Your task to perform on an android device: change keyboard looks Image 0: 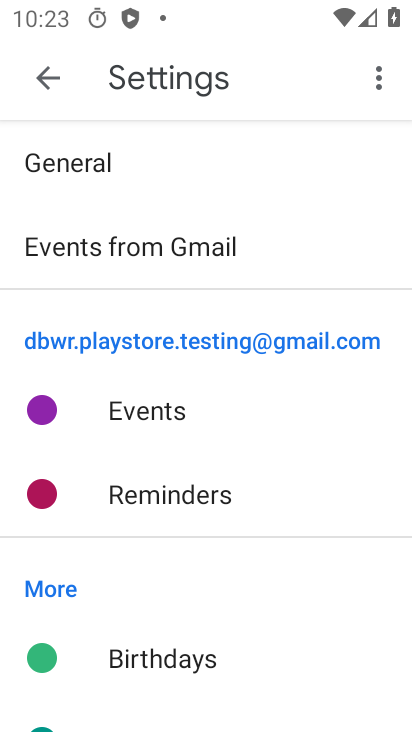
Step 0: press home button
Your task to perform on an android device: change keyboard looks Image 1: 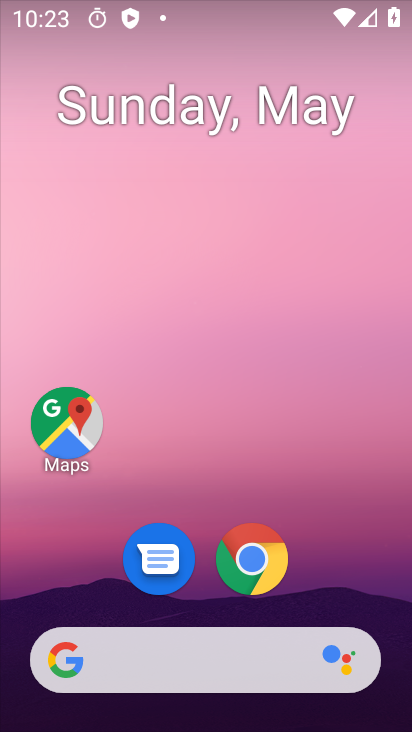
Step 1: drag from (339, 569) to (339, 82)
Your task to perform on an android device: change keyboard looks Image 2: 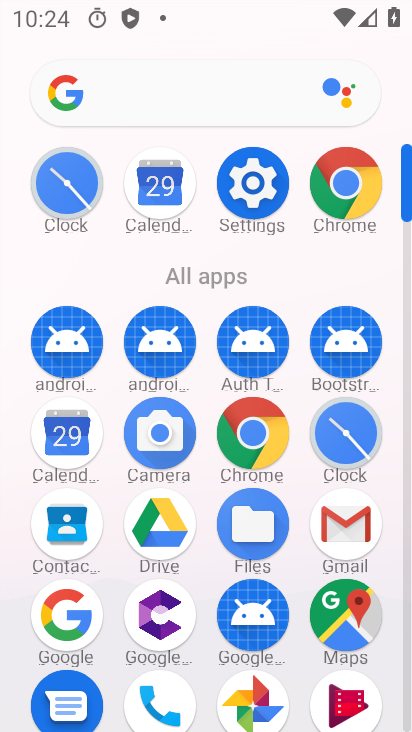
Step 2: drag from (290, 601) to (297, 329)
Your task to perform on an android device: change keyboard looks Image 3: 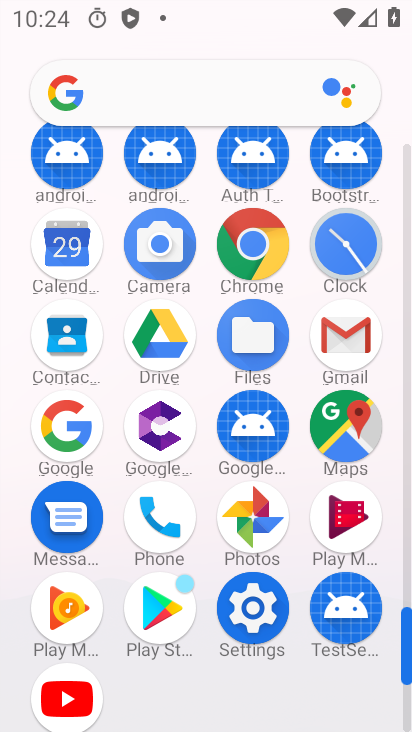
Step 3: click (260, 626)
Your task to perform on an android device: change keyboard looks Image 4: 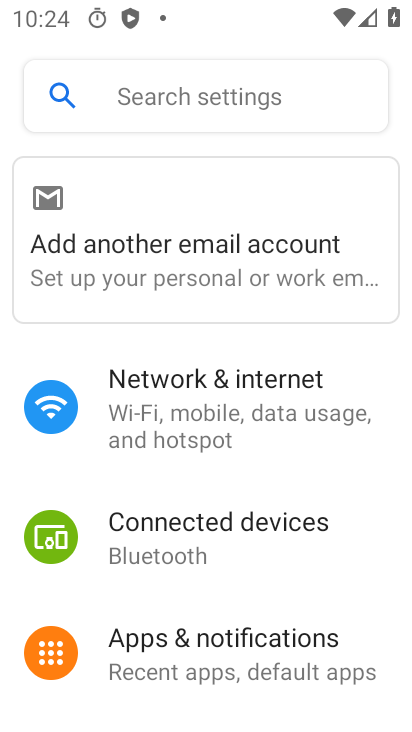
Step 4: drag from (297, 653) to (275, 210)
Your task to perform on an android device: change keyboard looks Image 5: 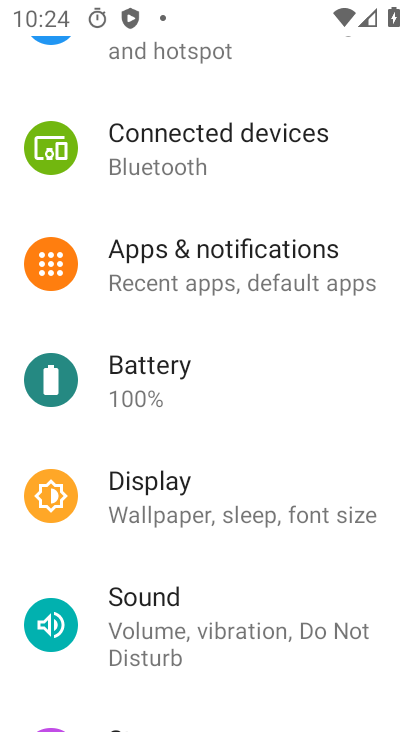
Step 5: drag from (345, 666) to (318, 184)
Your task to perform on an android device: change keyboard looks Image 6: 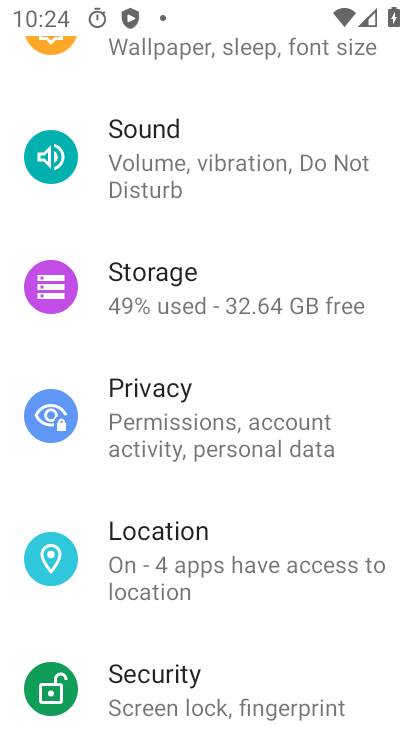
Step 6: drag from (302, 671) to (315, 241)
Your task to perform on an android device: change keyboard looks Image 7: 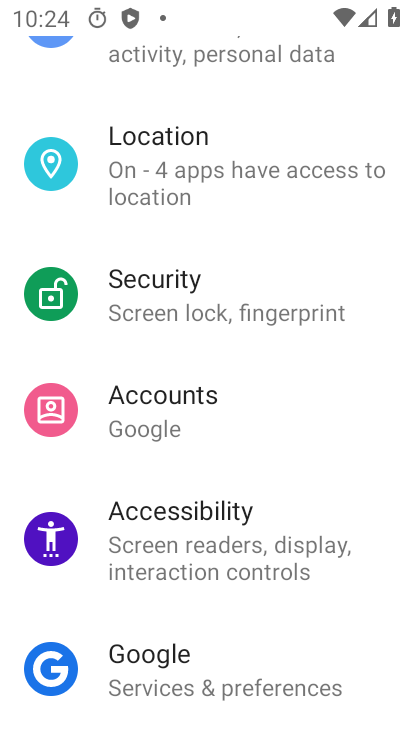
Step 7: drag from (306, 634) to (317, 169)
Your task to perform on an android device: change keyboard looks Image 8: 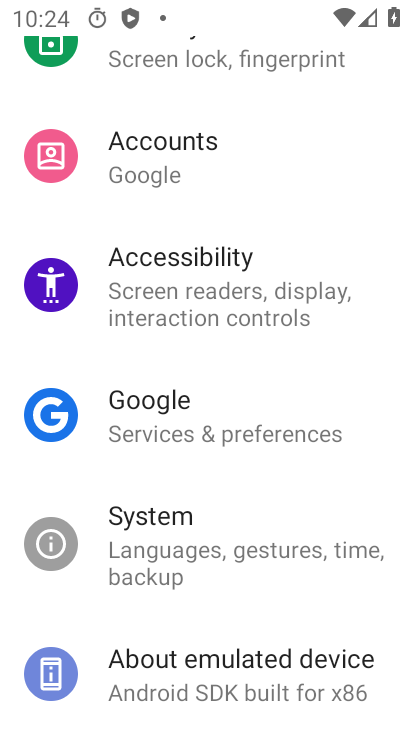
Step 8: drag from (299, 373) to (303, 241)
Your task to perform on an android device: change keyboard looks Image 9: 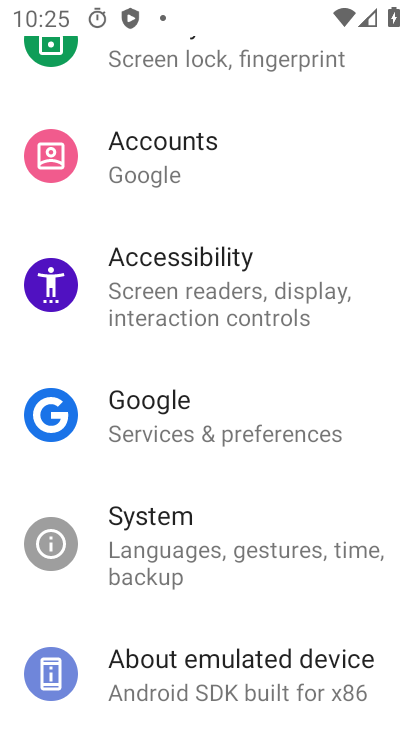
Step 9: click (304, 548)
Your task to perform on an android device: change keyboard looks Image 10: 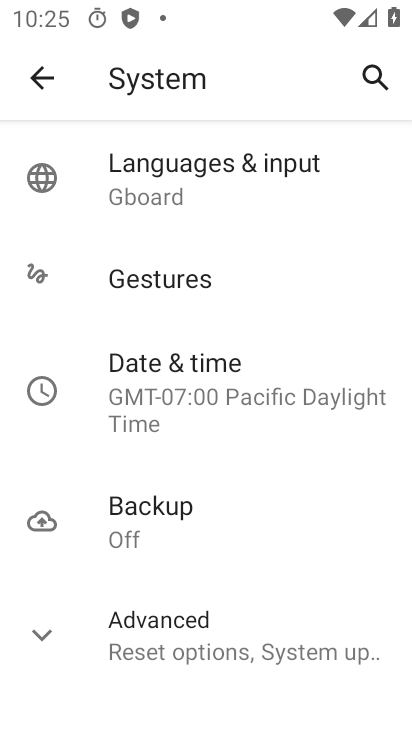
Step 10: click (317, 169)
Your task to perform on an android device: change keyboard looks Image 11: 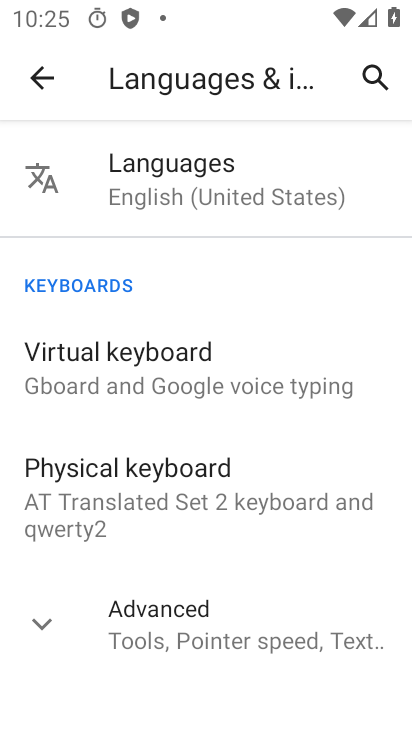
Step 11: click (298, 392)
Your task to perform on an android device: change keyboard looks Image 12: 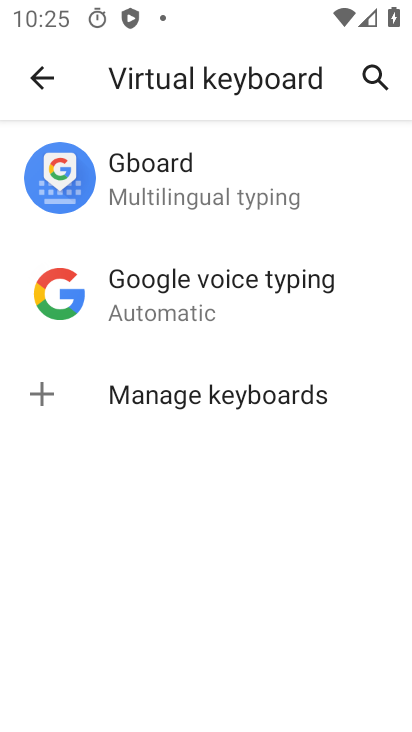
Step 12: click (273, 209)
Your task to perform on an android device: change keyboard looks Image 13: 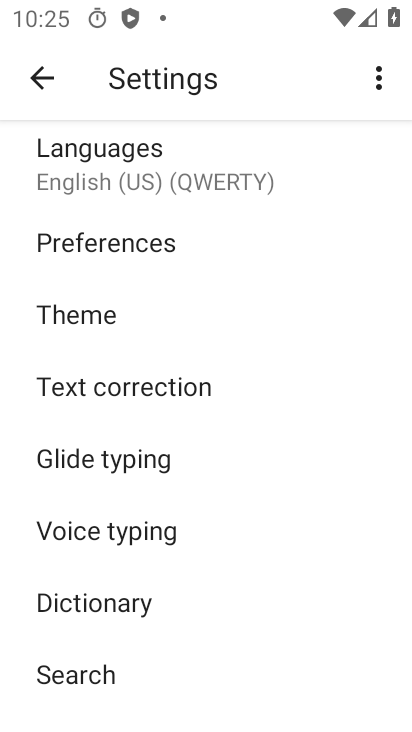
Step 13: click (146, 335)
Your task to perform on an android device: change keyboard looks Image 14: 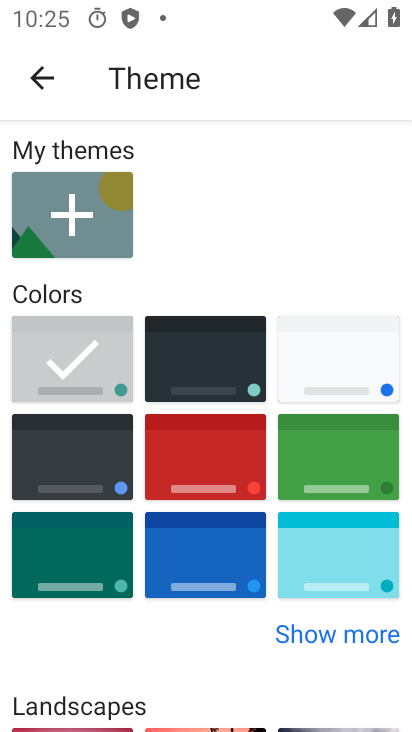
Step 14: click (190, 375)
Your task to perform on an android device: change keyboard looks Image 15: 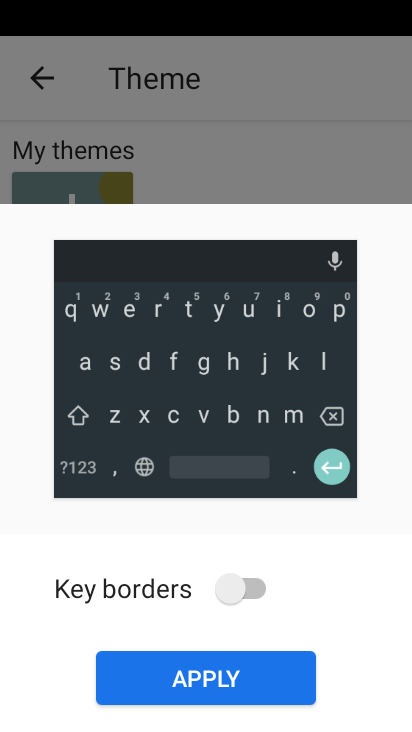
Step 15: click (243, 683)
Your task to perform on an android device: change keyboard looks Image 16: 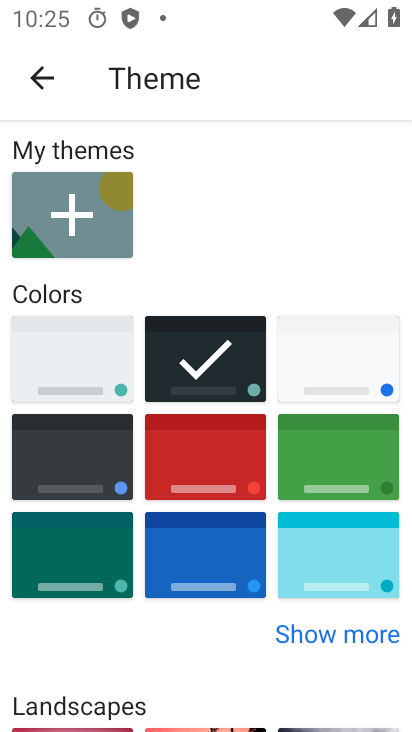
Step 16: task complete